Your task to perform on an android device: change notifications settings Image 0: 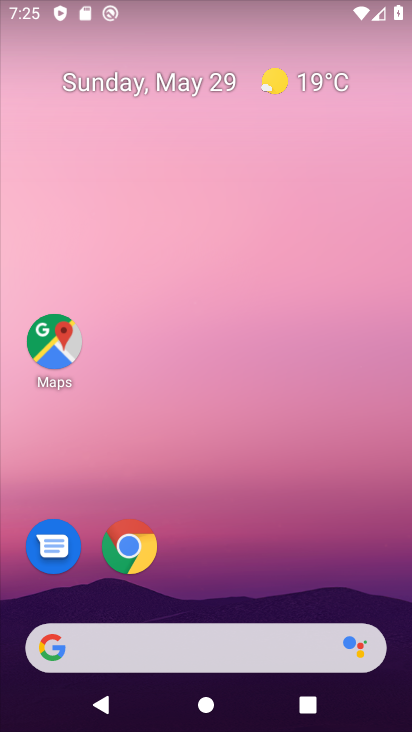
Step 0: drag from (213, 567) to (261, 30)
Your task to perform on an android device: change notifications settings Image 1: 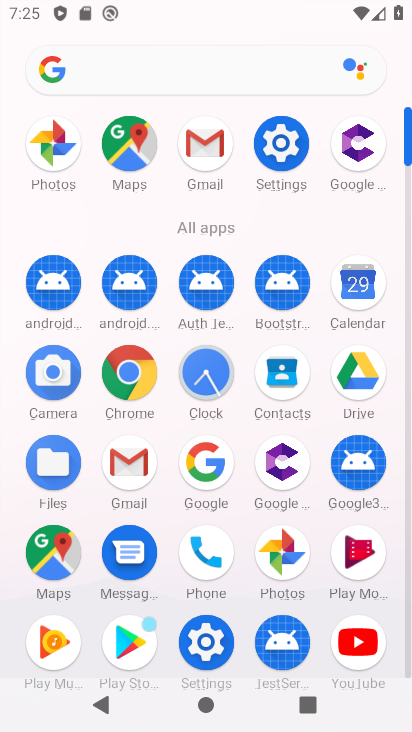
Step 1: click (280, 142)
Your task to perform on an android device: change notifications settings Image 2: 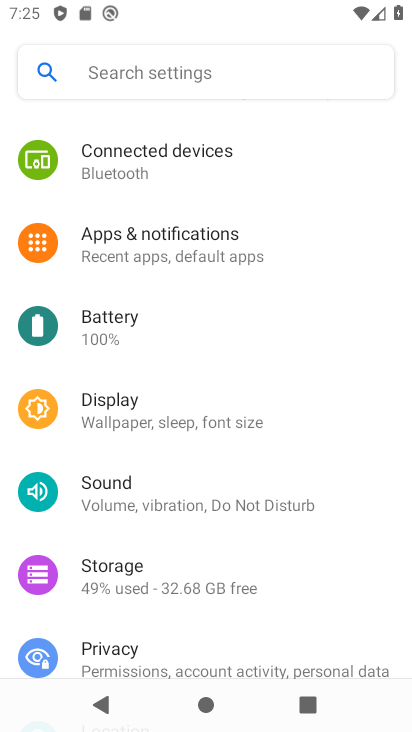
Step 2: click (128, 244)
Your task to perform on an android device: change notifications settings Image 3: 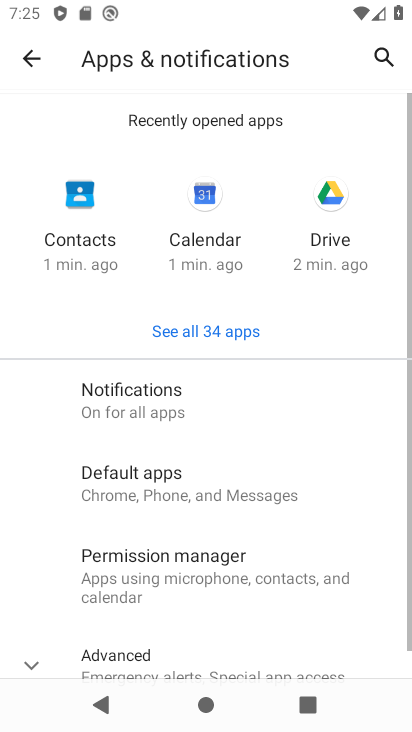
Step 3: click (121, 408)
Your task to perform on an android device: change notifications settings Image 4: 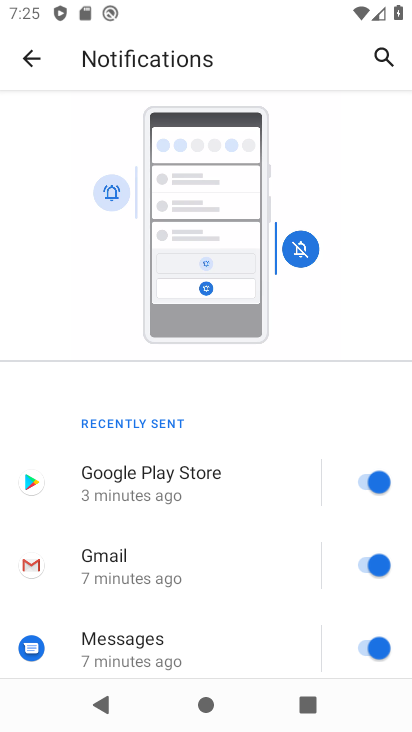
Step 4: drag from (224, 622) to (260, 195)
Your task to perform on an android device: change notifications settings Image 5: 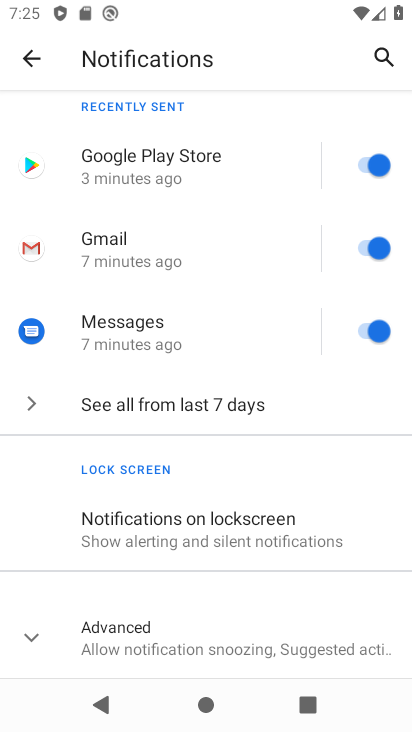
Step 5: click (119, 541)
Your task to perform on an android device: change notifications settings Image 6: 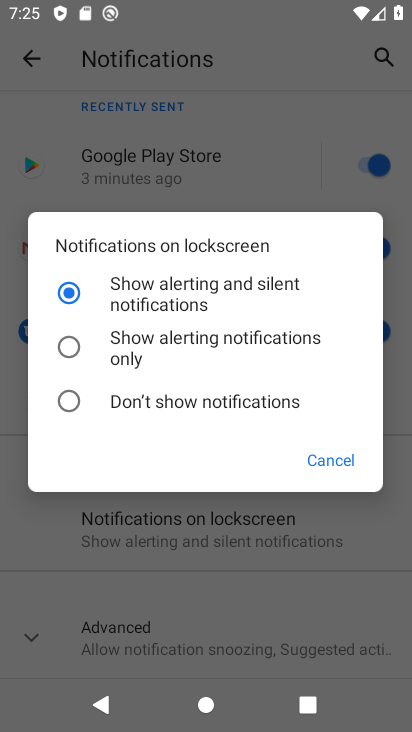
Step 6: click (75, 398)
Your task to perform on an android device: change notifications settings Image 7: 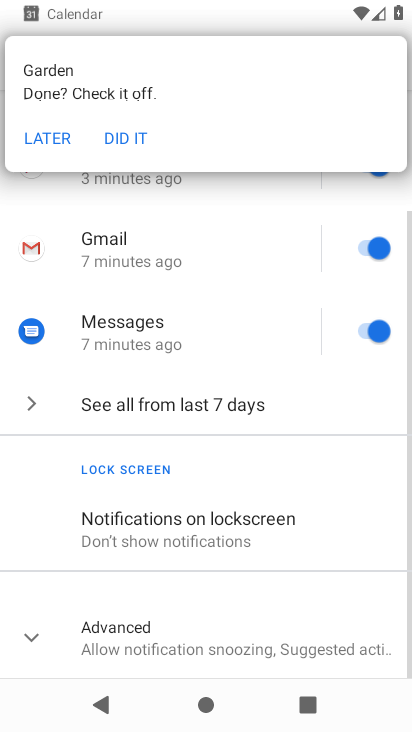
Step 7: task complete